Your task to perform on an android device: Do I have any events this weekend? Image 0: 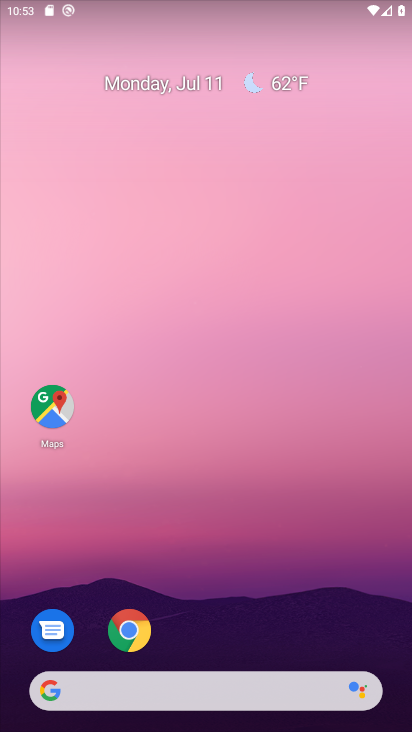
Step 0: drag from (268, 497) to (309, 30)
Your task to perform on an android device: Do I have any events this weekend? Image 1: 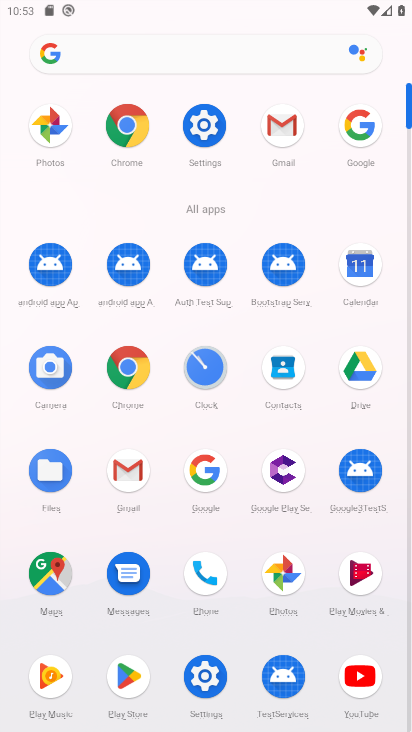
Step 1: click (364, 266)
Your task to perform on an android device: Do I have any events this weekend? Image 2: 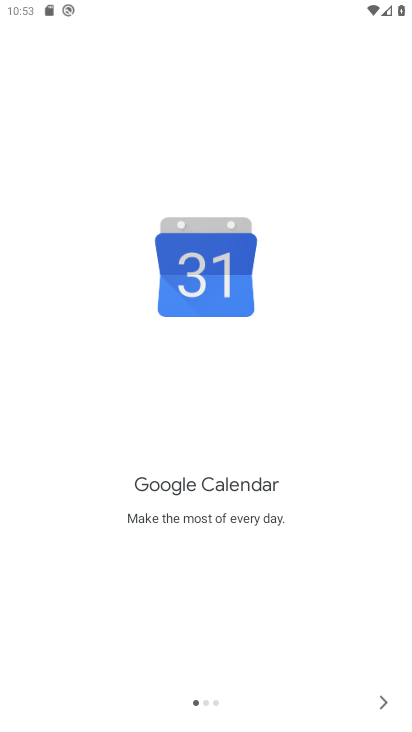
Step 2: click (384, 703)
Your task to perform on an android device: Do I have any events this weekend? Image 3: 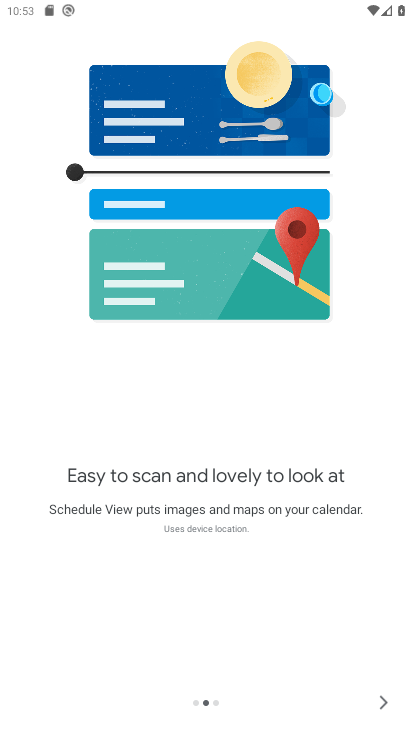
Step 3: click (384, 696)
Your task to perform on an android device: Do I have any events this weekend? Image 4: 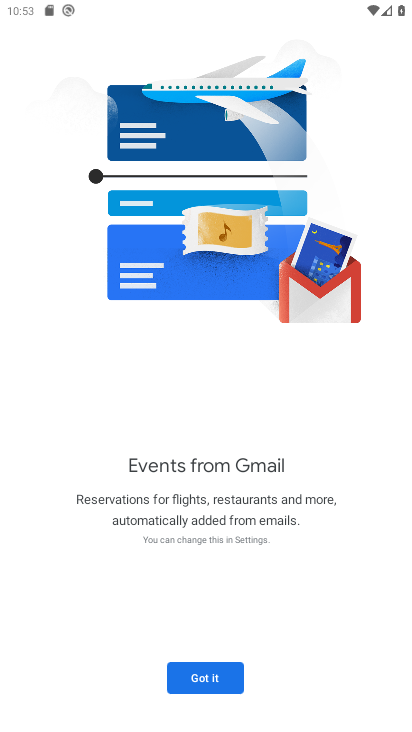
Step 4: click (223, 679)
Your task to perform on an android device: Do I have any events this weekend? Image 5: 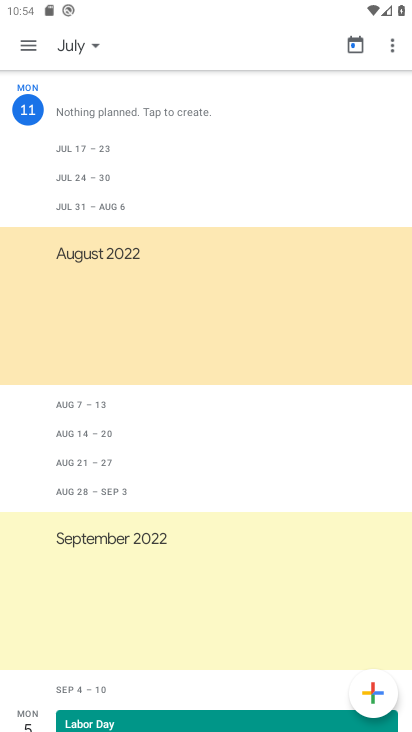
Step 5: task complete